Your task to perform on an android device: Open the map Image 0: 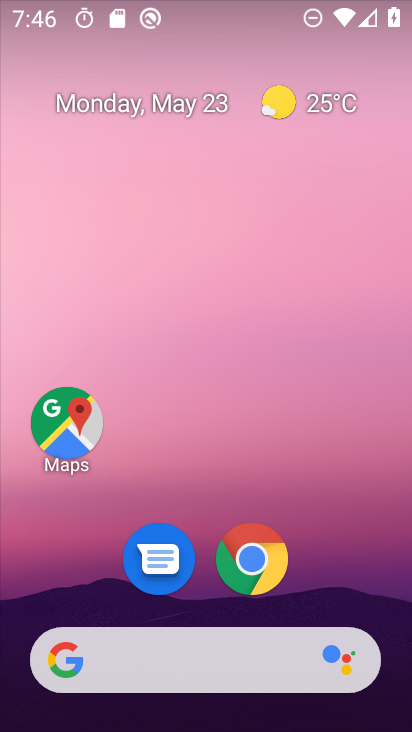
Step 0: drag from (378, 632) to (284, 63)
Your task to perform on an android device: Open the map Image 1: 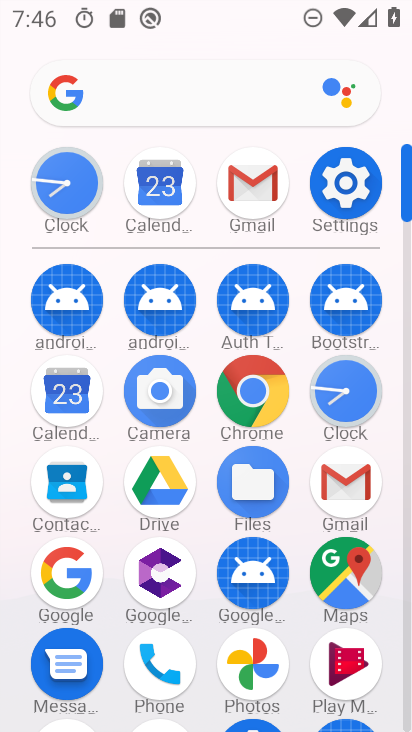
Step 1: click (321, 564)
Your task to perform on an android device: Open the map Image 2: 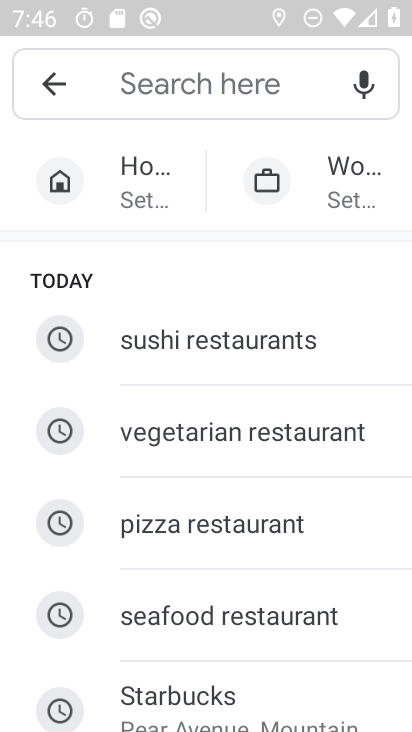
Step 2: task complete